Your task to perform on an android device: choose inbox layout in the gmail app Image 0: 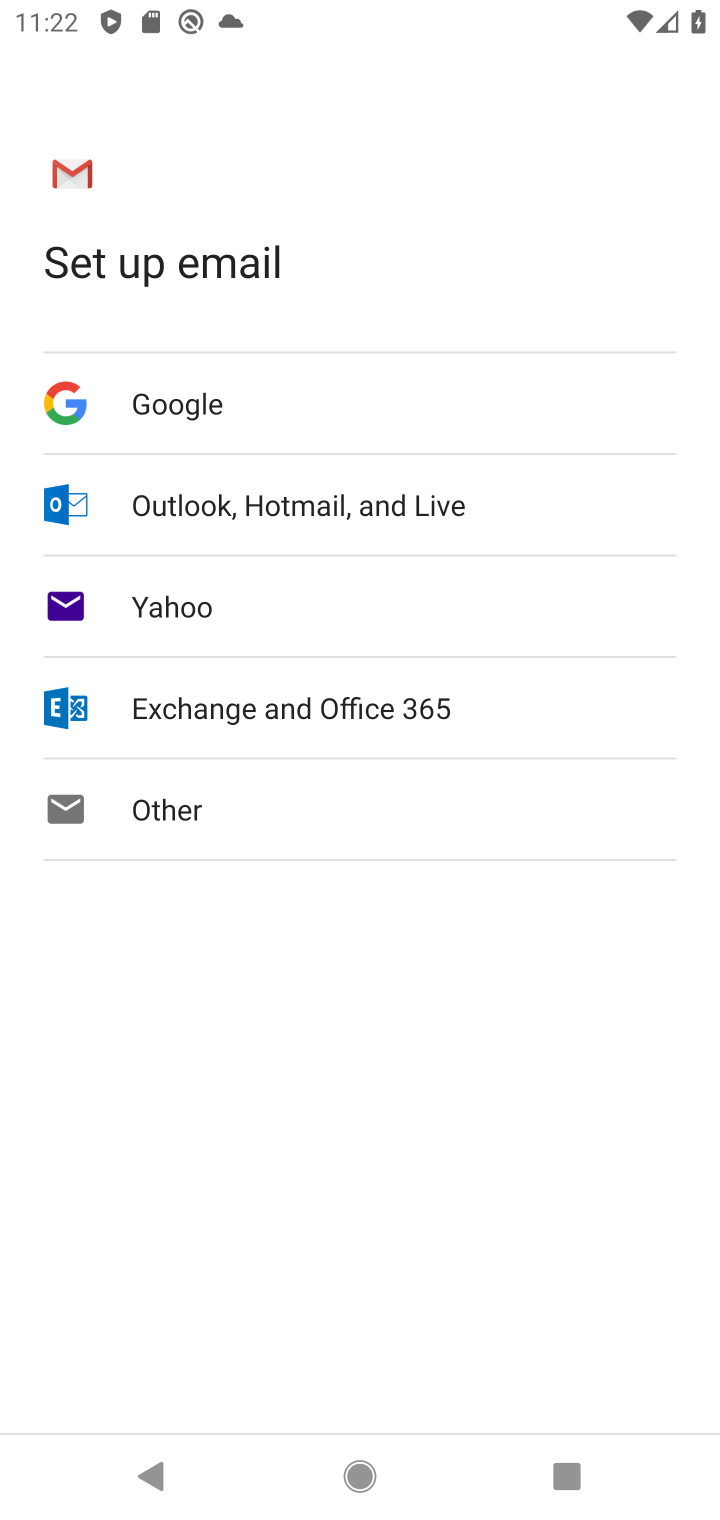
Step 0: press home button
Your task to perform on an android device: choose inbox layout in the gmail app Image 1: 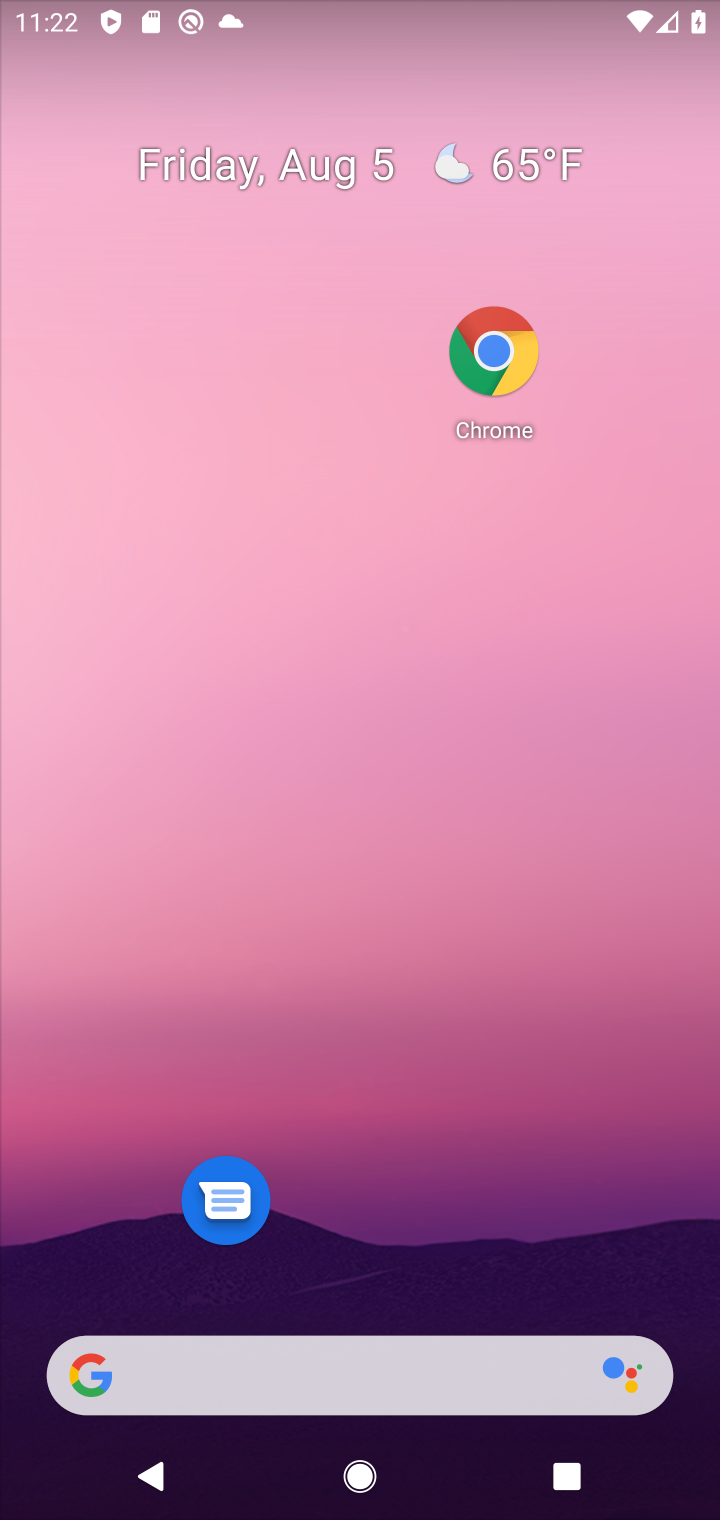
Step 1: drag from (324, 1154) to (263, 593)
Your task to perform on an android device: choose inbox layout in the gmail app Image 2: 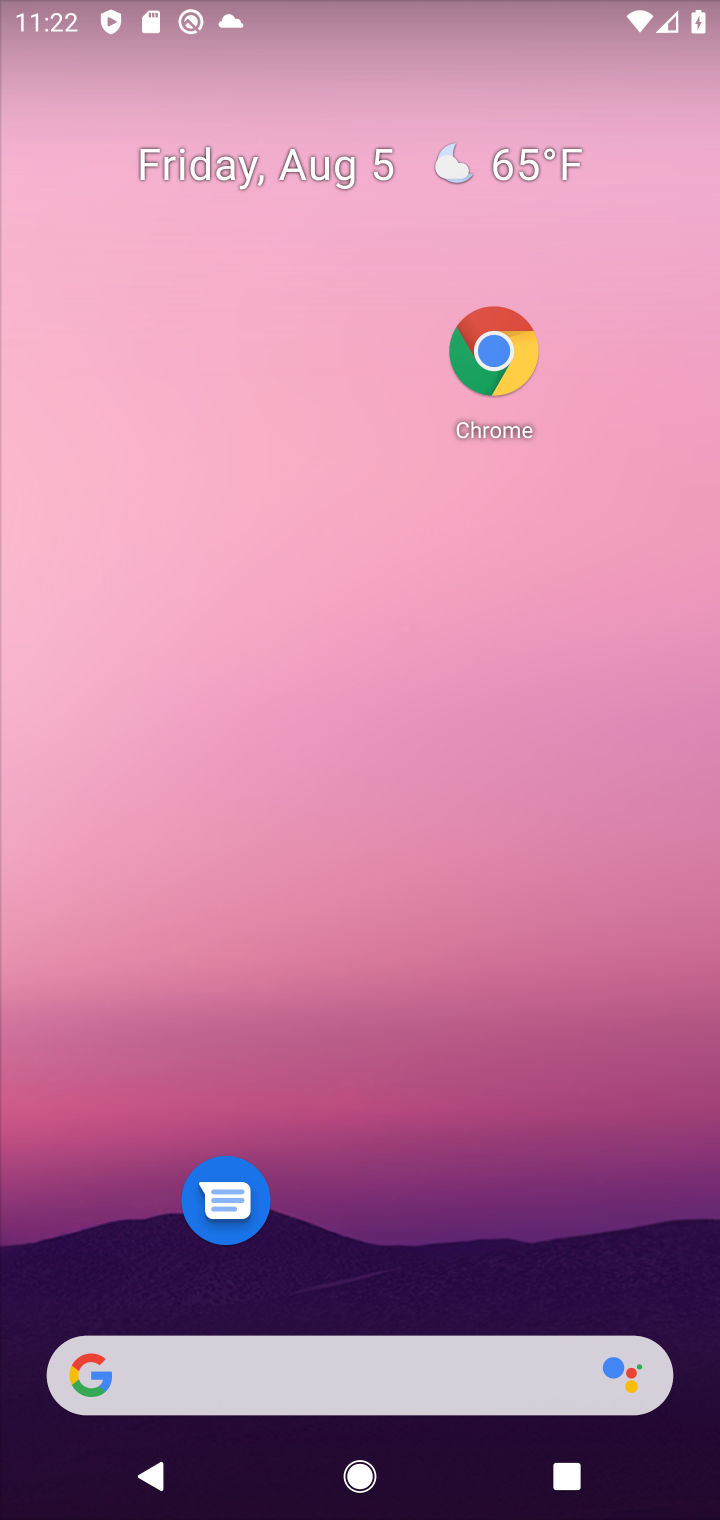
Step 2: drag from (280, 1036) to (332, 273)
Your task to perform on an android device: choose inbox layout in the gmail app Image 3: 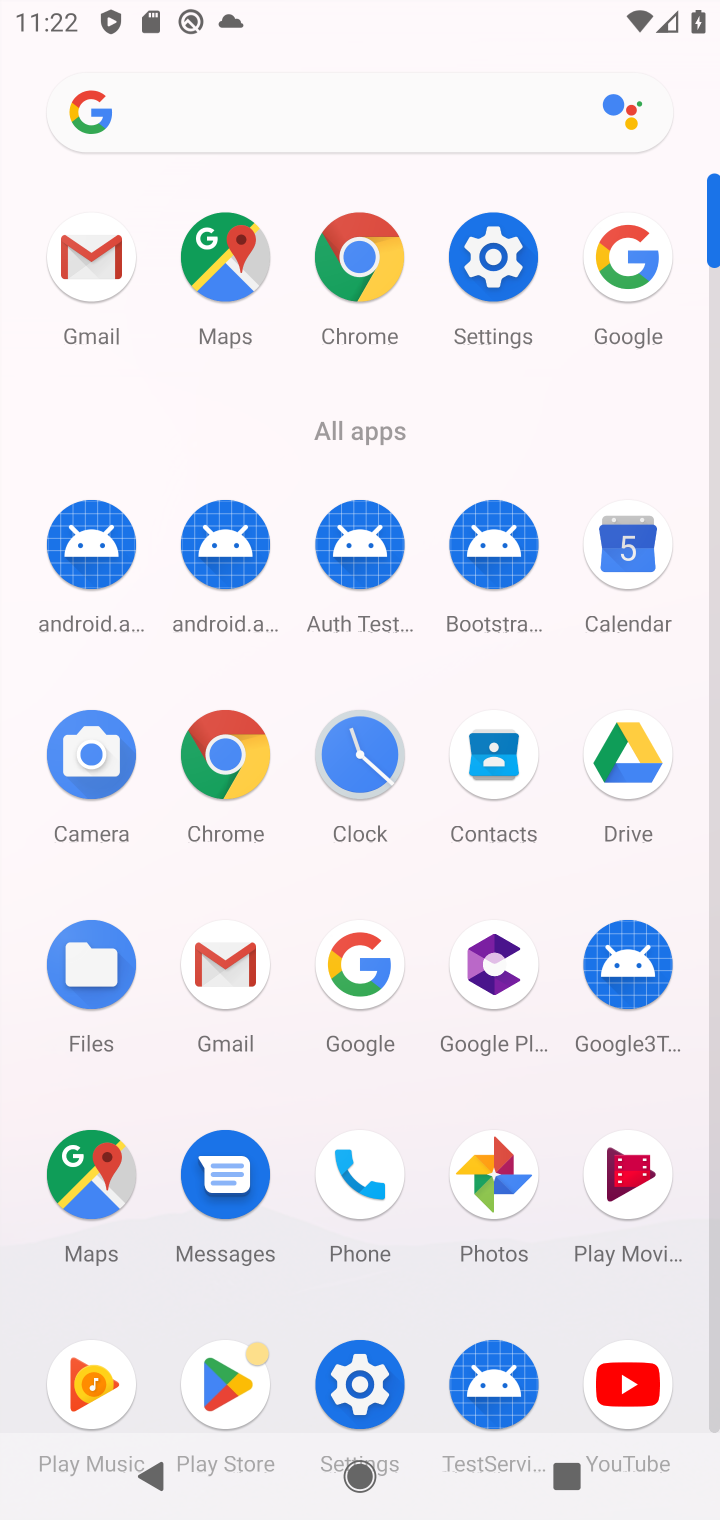
Step 3: click (242, 979)
Your task to perform on an android device: choose inbox layout in the gmail app Image 4: 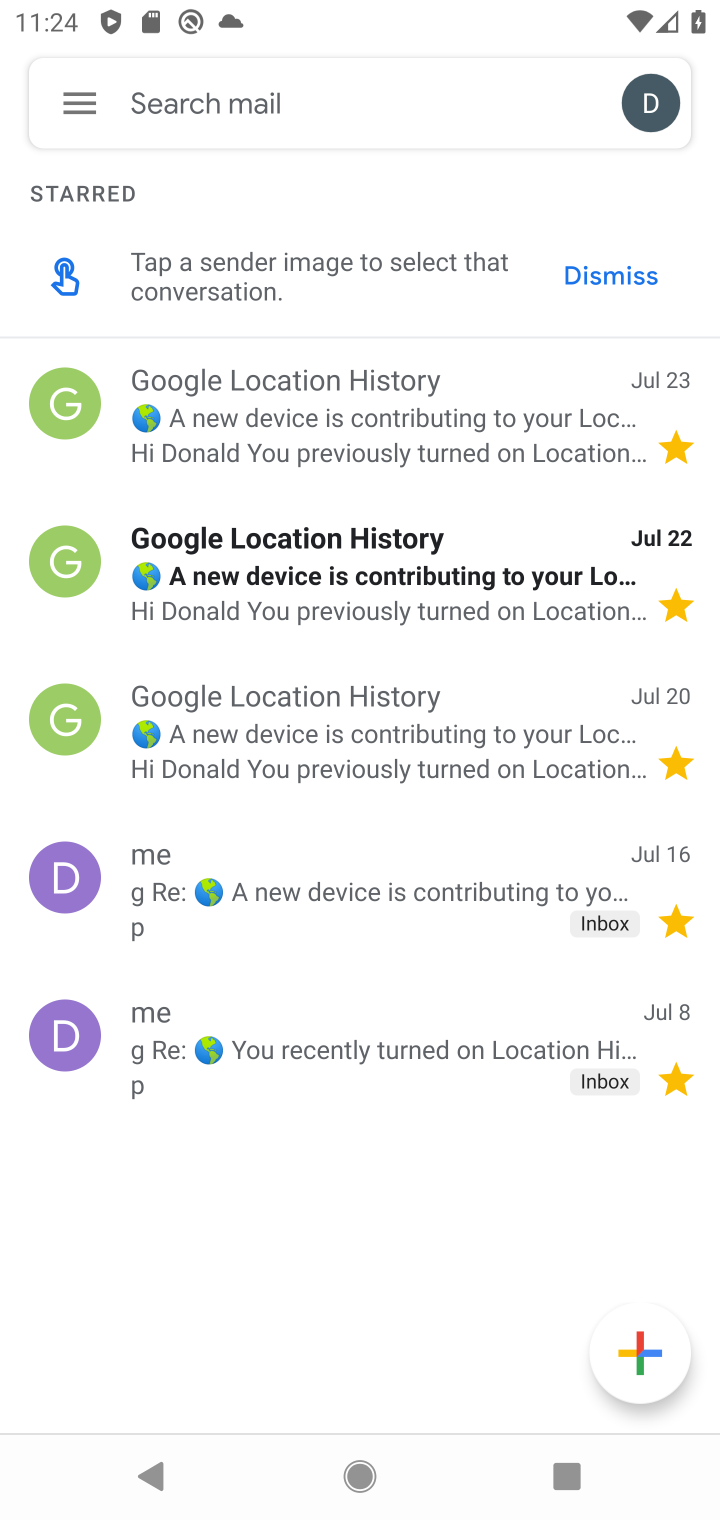
Step 4: click (73, 108)
Your task to perform on an android device: choose inbox layout in the gmail app Image 5: 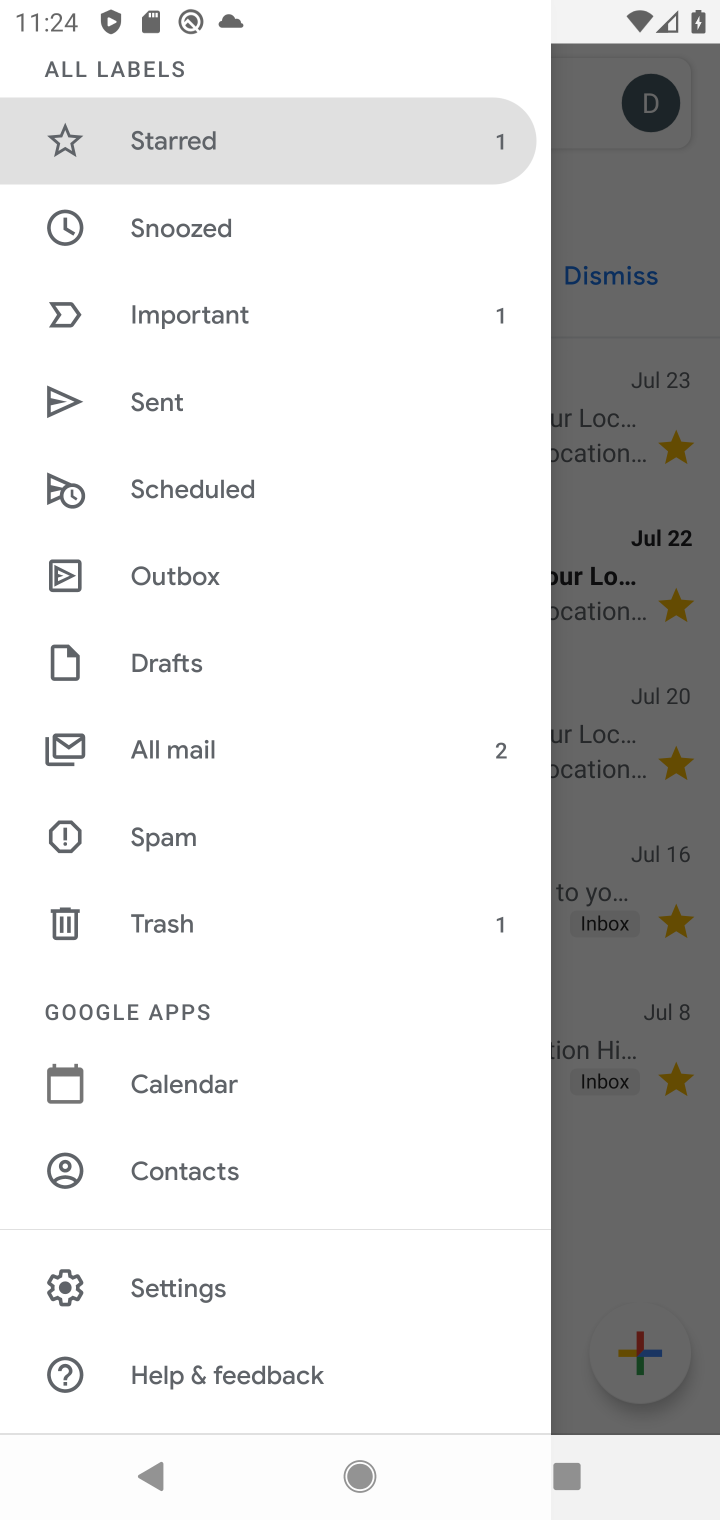
Step 5: click (82, 1265)
Your task to perform on an android device: choose inbox layout in the gmail app Image 6: 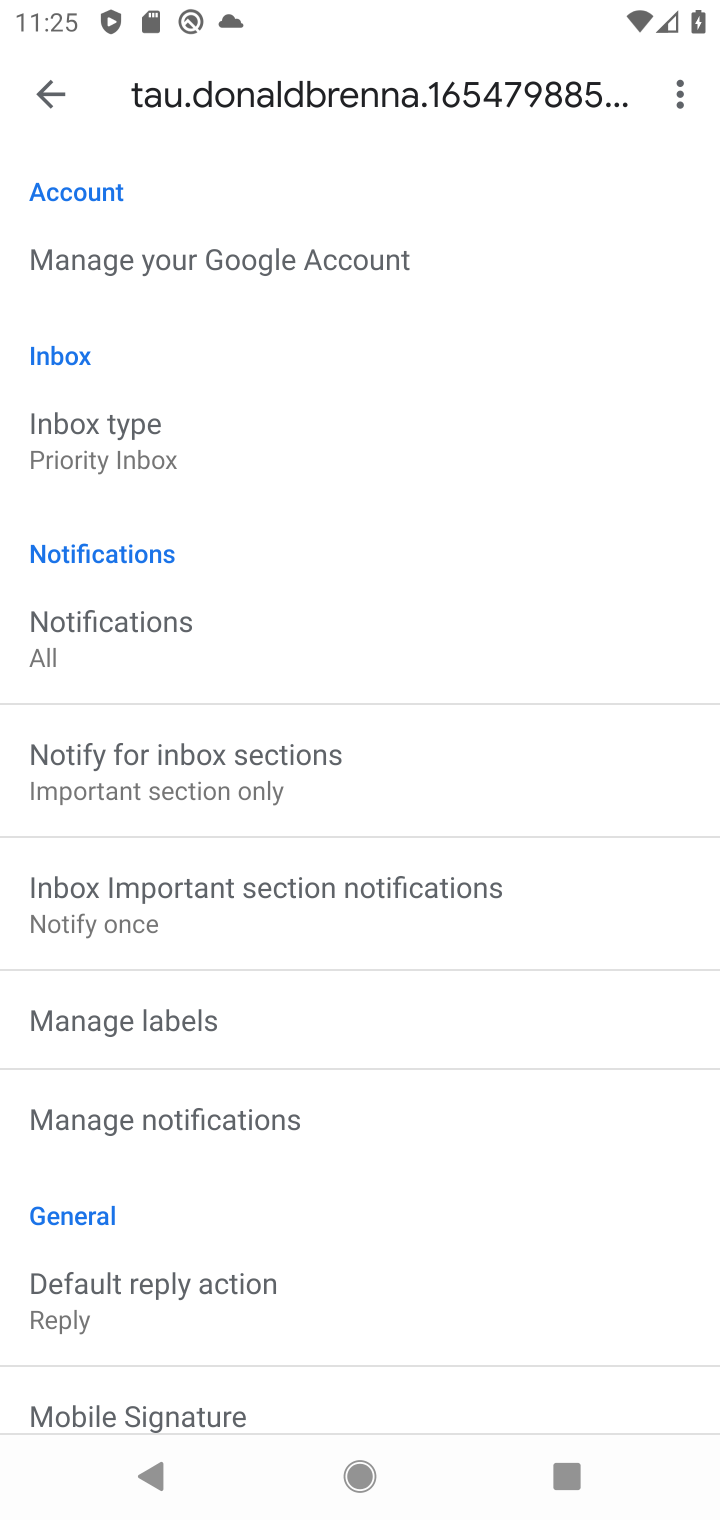
Step 6: task complete